Your task to perform on an android device: Search for desk lamps on article.com Image 0: 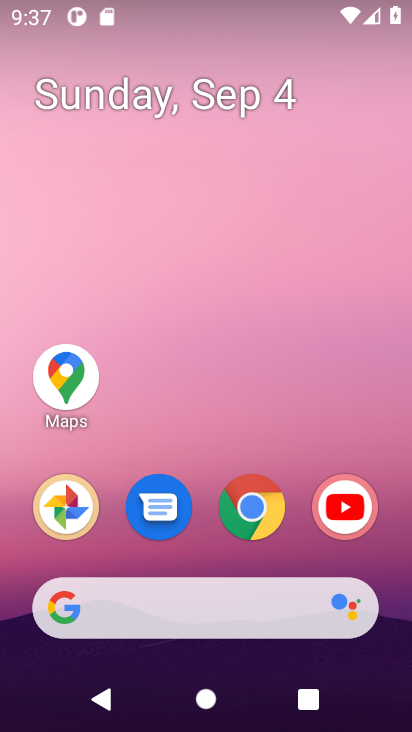
Step 0: click (251, 509)
Your task to perform on an android device: Search for desk lamps on article.com Image 1: 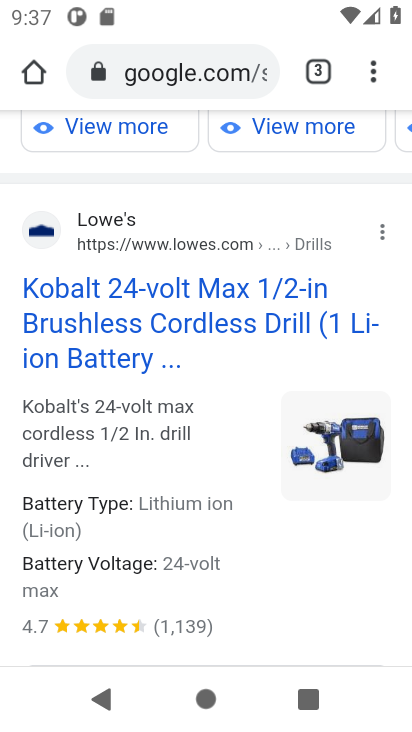
Step 1: click (141, 52)
Your task to perform on an android device: Search for desk lamps on article.com Image 2: 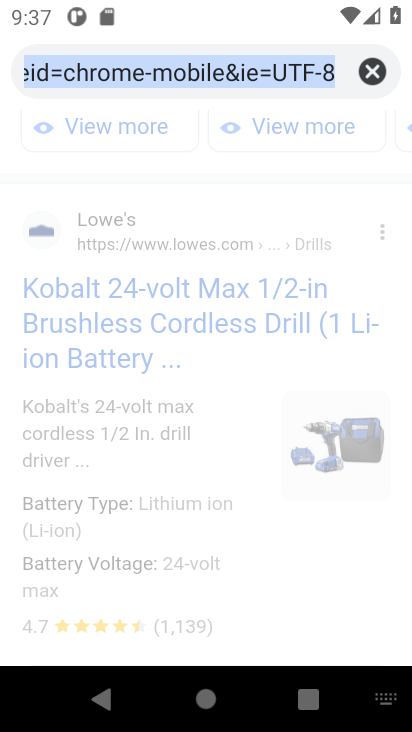
Step 2: click (374, 70)
Your task to perform on an android device: Search for desk lamps on article.com Image 3: 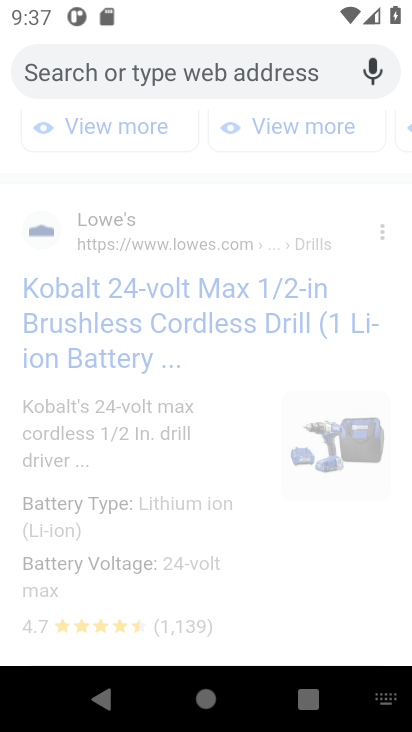
Step 3: type "article.com"
Your task to perform on an android device: Search for desk lamps on article.com Image 4: 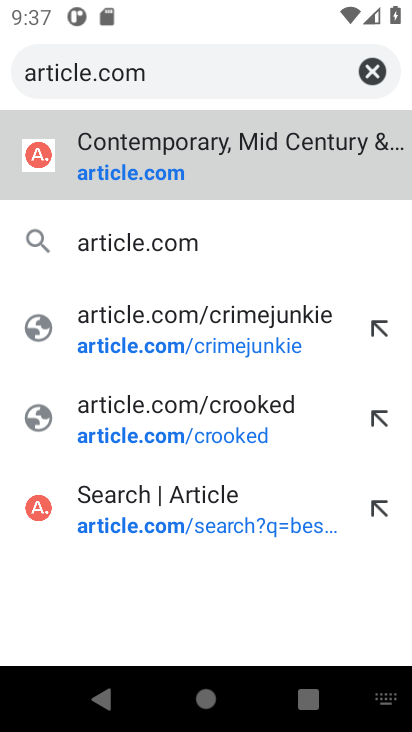
Step 4: click (129, 150)
Your task to perform on an android device: Search for desk lamps on article.com Image 5: 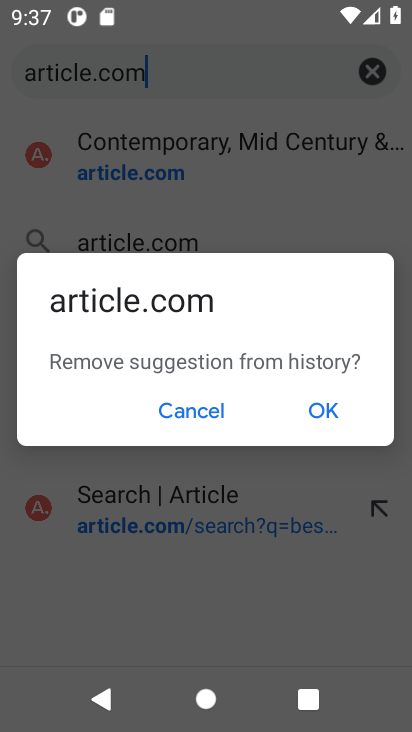
Step 5: click (322, 408)
Your task to perform on an android device: Search for desk lamps on article.com Image 6: 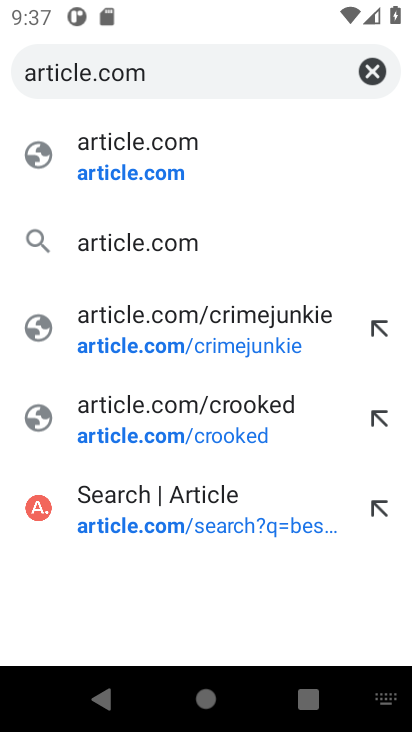
Step 6: click (115, 148)
Your task to perform on an android device: Search for desk lamps on article.com Image 7: 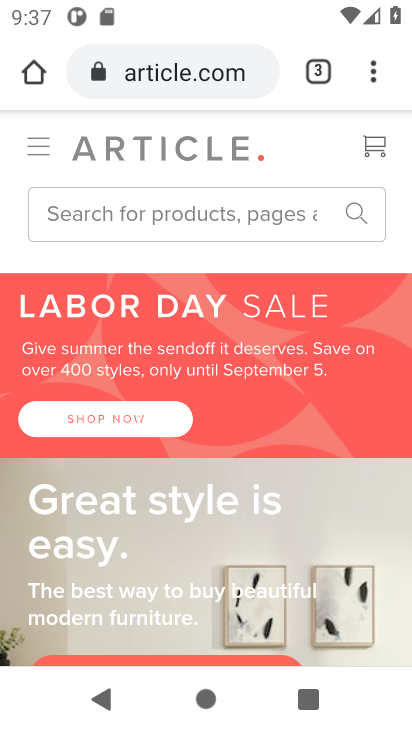
Step 7: click (122, 203)
Your task to perform on an android device: Search for desk lamps on article.com Image 8: 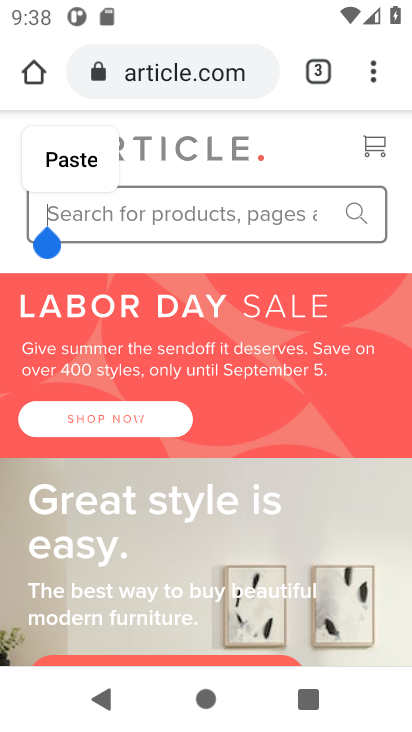
Step 8: type " desk lamps"
Your task to perform on an android device: Search for desk lamps on article.com Image 9: 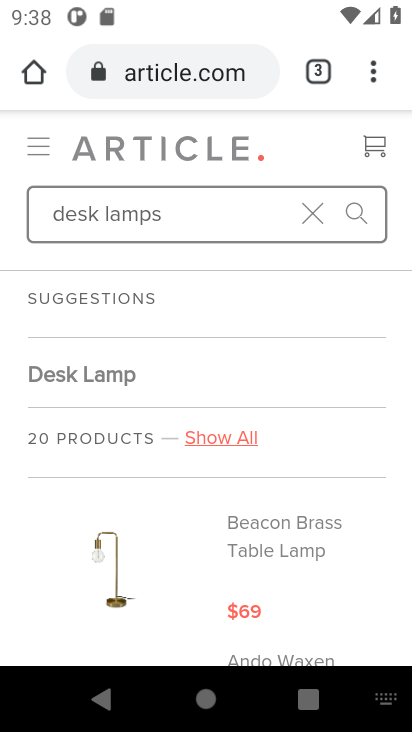
Step 9: click (356, 204)
Your task to perform on an android device: Search for desk lamps on article.com Image 10: 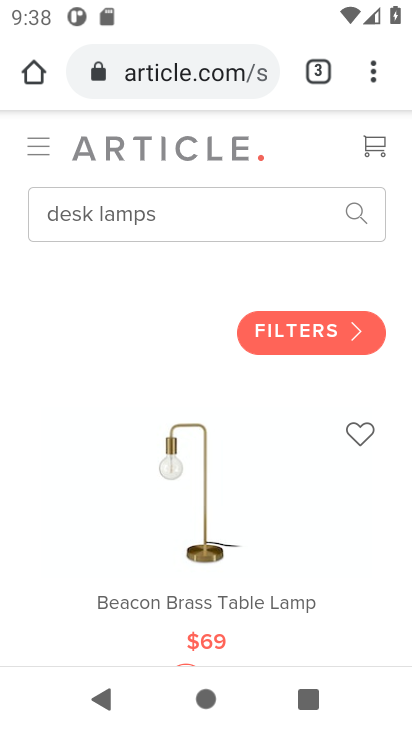
Step 10: drag from (221, 263) to (210, 160)
Your task to perform on an android device: Search for desk lamps on article.com Image 11: 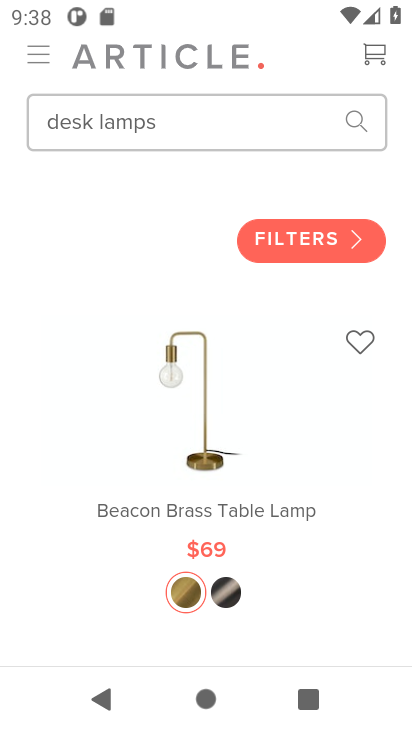
Step 11: drag from (286, 469) to (251, 158)
Your task to perform on an android device: Search for desk lamps on article.com Image 12: 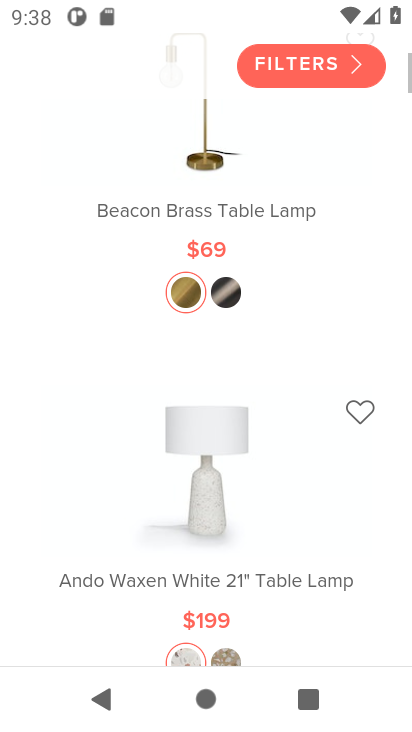
Step 12: drag from (285, 482) to (275, 195)
Your task to perform on an android device: Search for desk lamps on article.com Image 13: 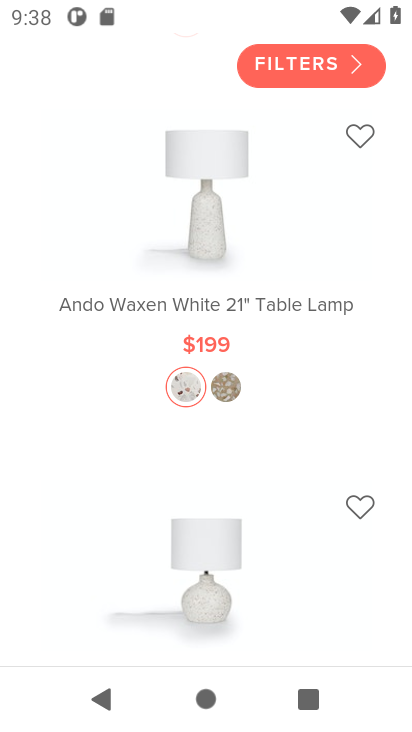
Step 13: drag from (276, 445) to (272, 168)
Your task to perform on an android device: Search for desk lamps on article.com Image 14: 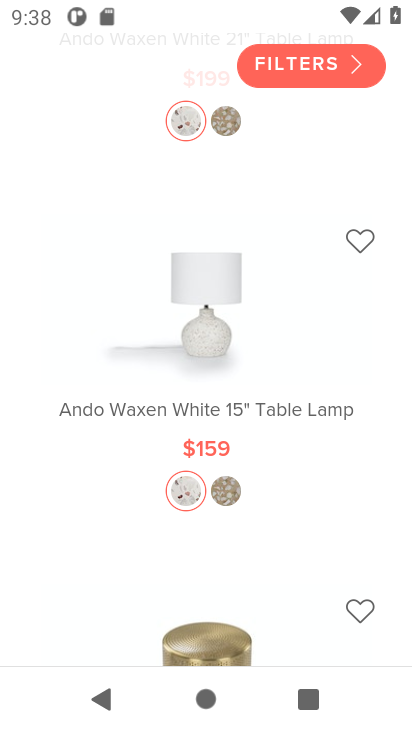
Step 14: drag from (280, 630) to (265, 107)
Your task to perform on an android device: Search for desk lamps on article.com Image 15: 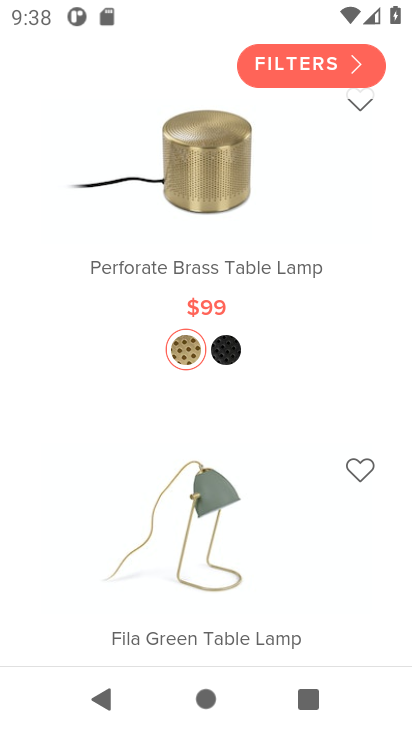
Step 15: drag from (281, 545) to (286, 97)
Your task to perform on an android device: Search for desk lamps on article.com Image 16: 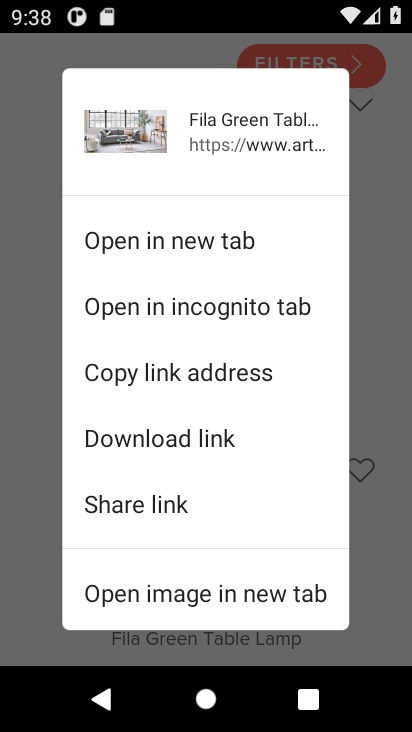
Step 16: click (357, 645)
Your task to perform on an android device: Search for desk lamps on article.com Image 17: 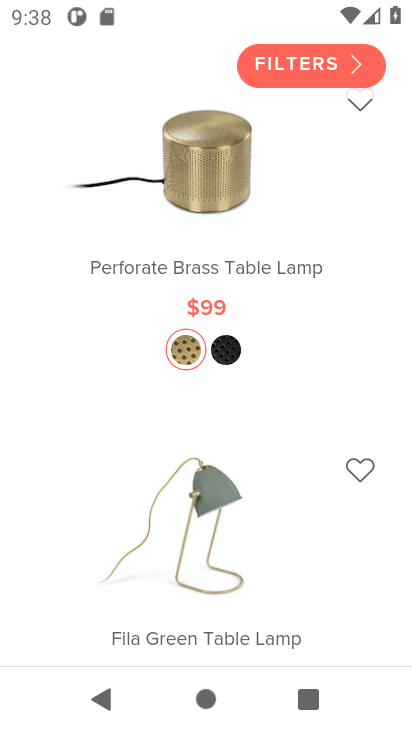
Step 17: drag from (280, 577) to (276, 162)
Your task to perform on an android device: Search for desk lamps on article.com Image 18: 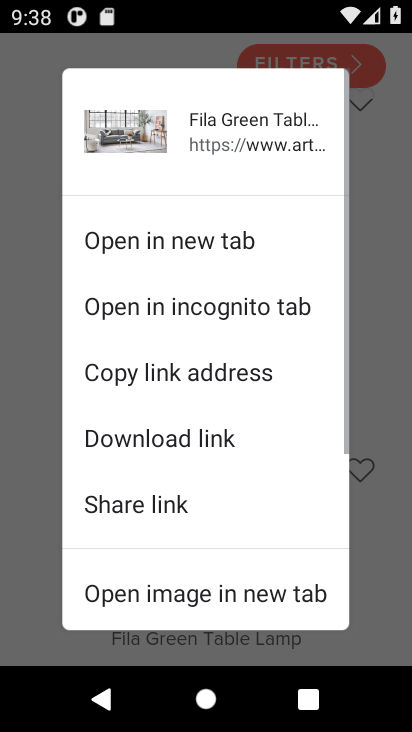
Step 18: click (395, 633)
Your task to perform on an android device: Search for desk lamps on article.com Image 19: 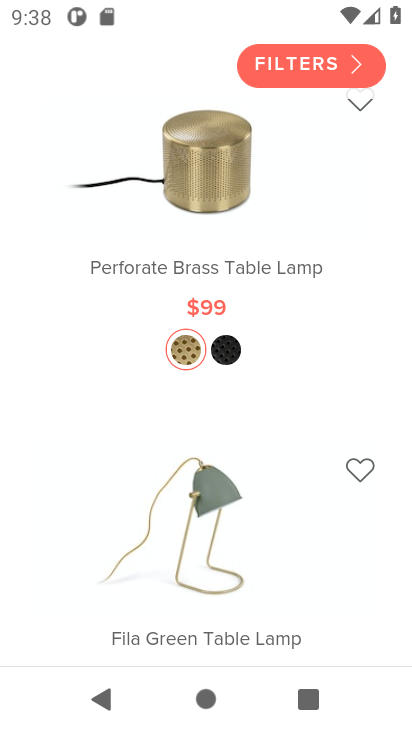
Step 19: task complete